Your task to perform on an android device: What is the news today? Image 0: 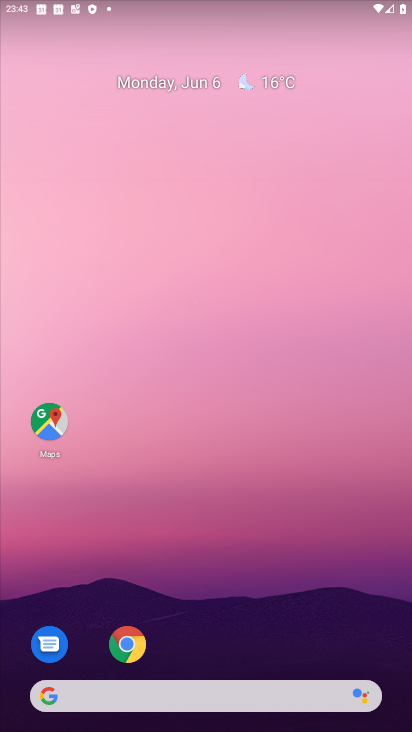
Step 0: drag from (289, 612) to (275, 0)
Your task to perform on an android device: What is the news today? Image 1: 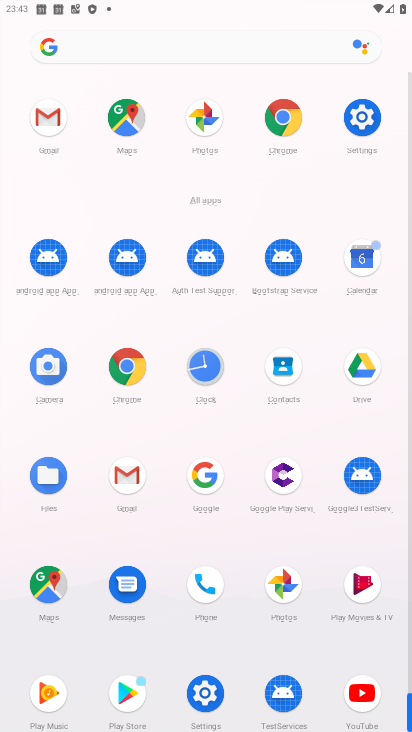
Step 1: drag from (11, 566) to (14, 290)
Your task to perform on an android device: What is the news today? Image 2: 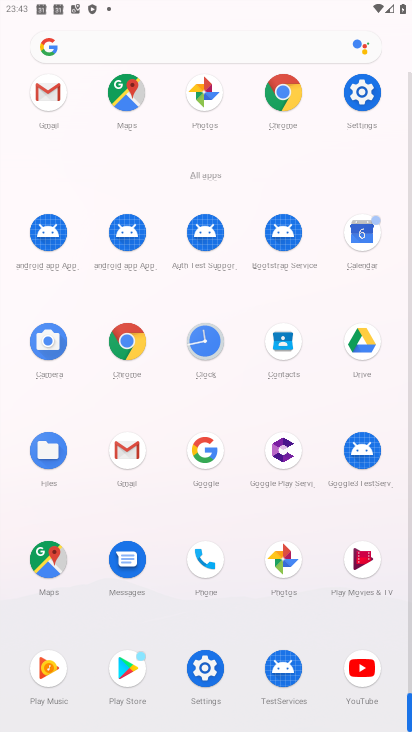
Step 2: click (123, 340)
Your task to perform on an android device: What is the news today? Image 3: 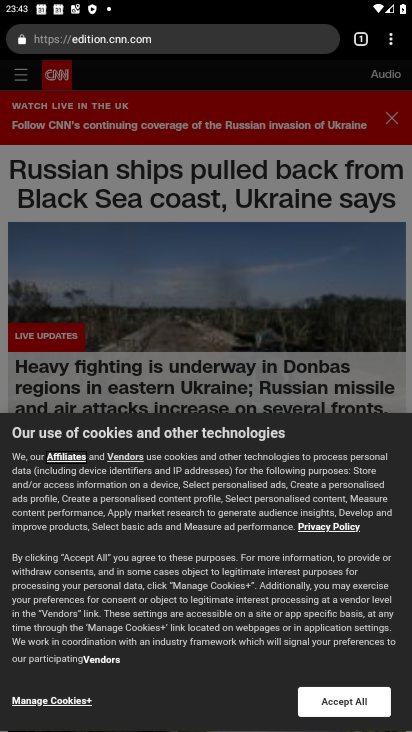
Step 3: click (169, 35)
Your task to perform on an android device: What is the news today? Image 4: 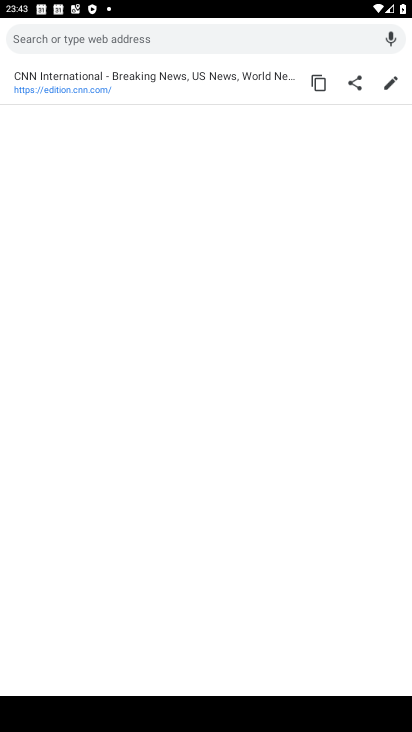
Step 4: type "What is the news today?"
Your task to perform on an android device: What is the news today? Image 5: 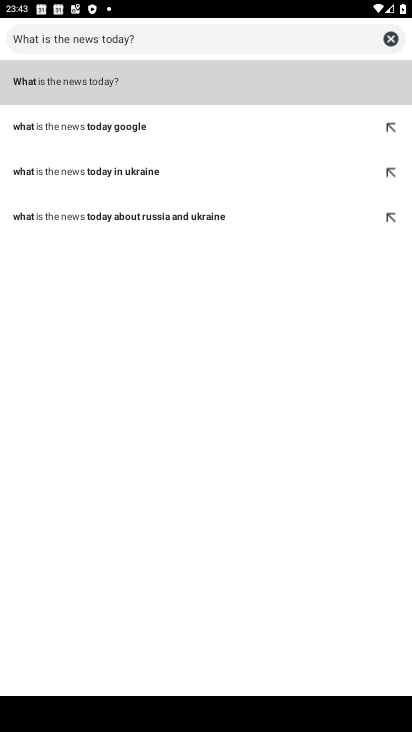
Step 5: click (113, 83)
Your task to perform on an android device: What is the news today? Image 6: 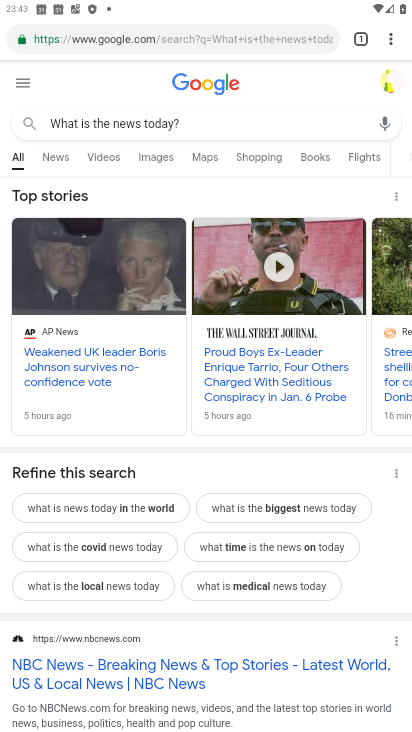
Step 6: task complete